Your task to perform on an android device: Open Chrome and go to settings Image 0: 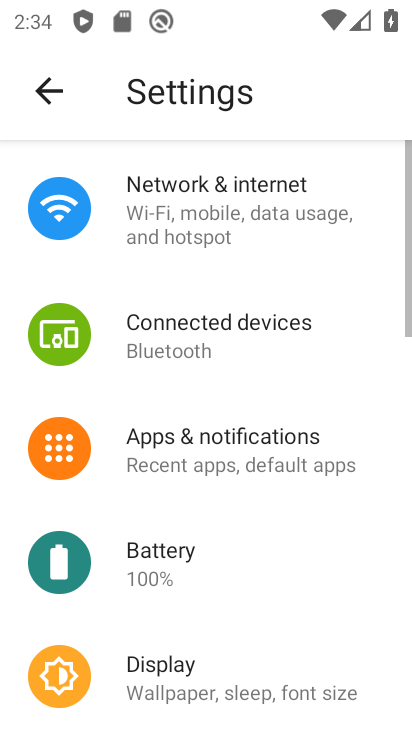
Step 0: press home button
Your task to perform on an android device: Open Chrome and go to settings Image 1: 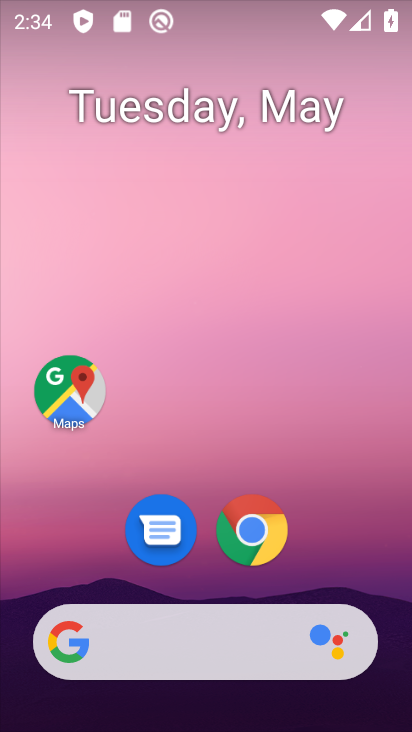
Step 1: click (236, 529)
Your task to perform on an android device: Open Chrome and go to settings Image 2: 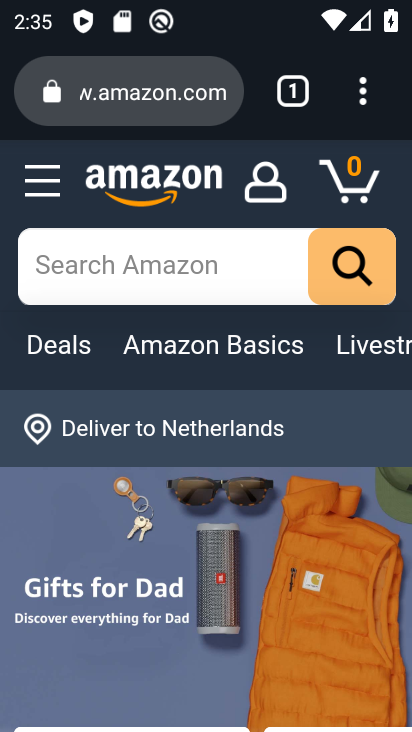
Step 2: click (364, 95)
Your task to perform on an android device: Open Chrome and go to settings Image 3: 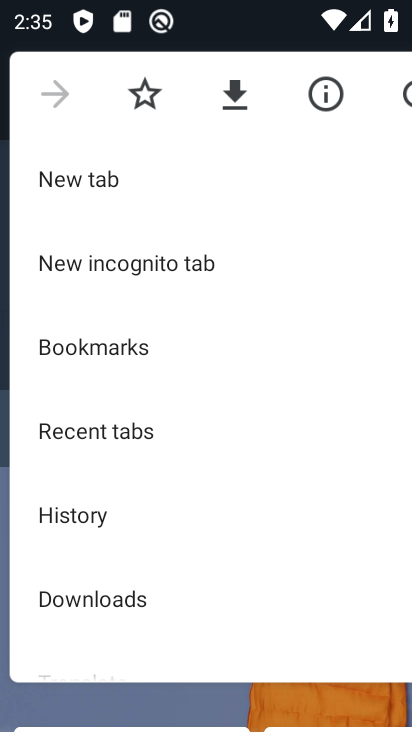
Step 3: drag from (183, 559) to (314, 100)
Your task to perform on an android device: Open Chrome and go to settings Image 4: 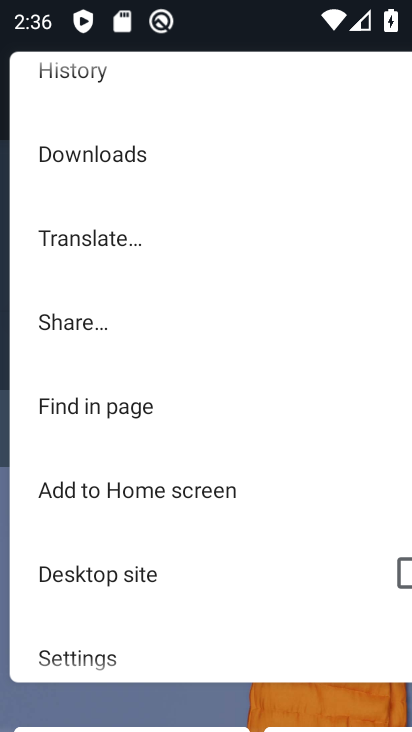
Step 4: drag from (130, 575) to (227, 277)
Your task to perform on an android device: Open Chrome and go to settings Image 5: 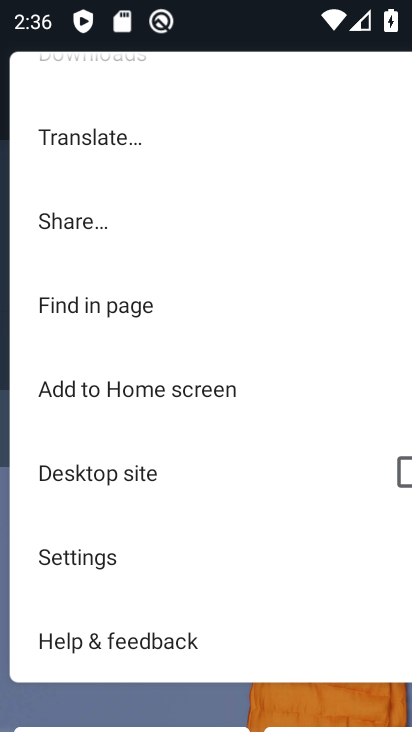
Step 5: click (132, 556)
Your task to perform on an android device: Open Chrome and go to settings Image 6: 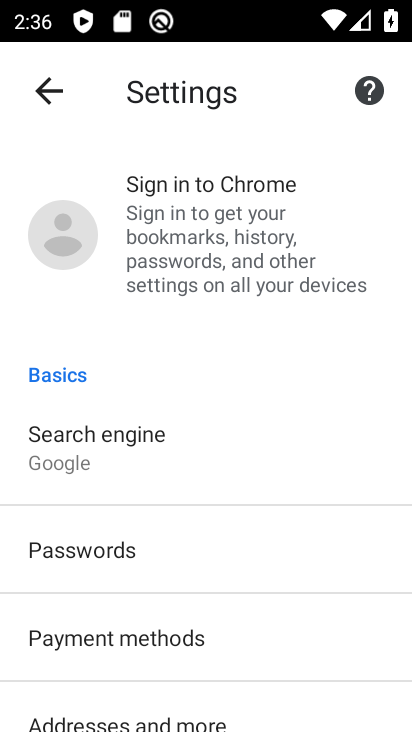
Step 6: task complete